Your task to perform on an android device: Open Maps and search for coffee Image 0: 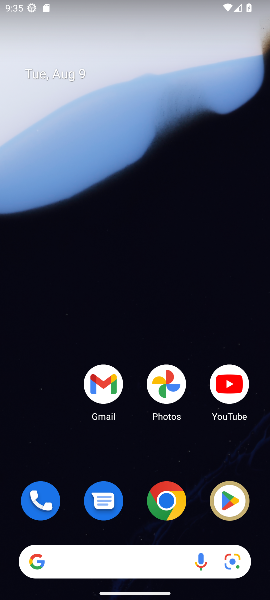
Step 0: drag from (139, 474) to (184, 21)
Your task to perform on an android device: Open Maps and search for coffee Image 1: 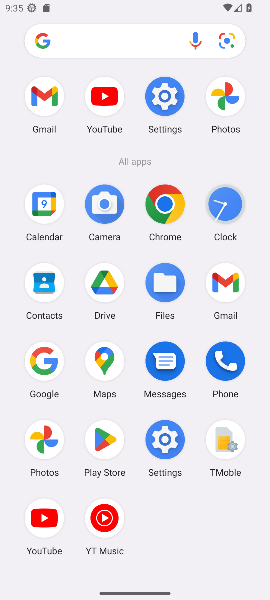
Step 1: click (104, 361)
Your task to perform on an android device: Open Maps and search for coffee Image 2: 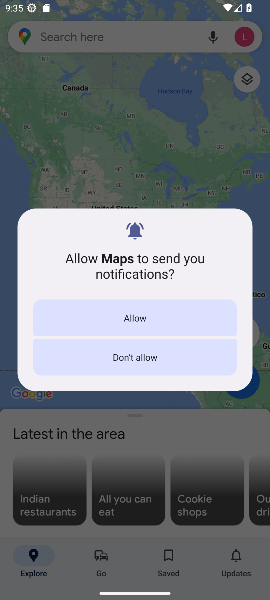
Step 2: click (122, 322)
Your task to perform on an android device: Open Maps and search for coffee Image 3: 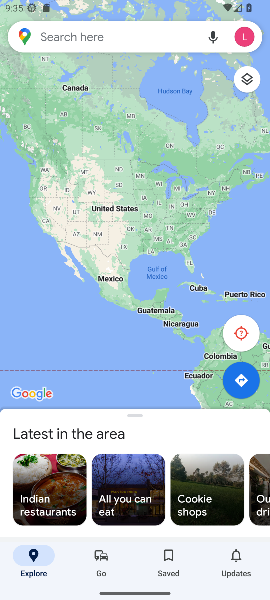
Step 3: click (91, 37)
Your task to perform on an android device: Open Maps and search for coffee Image 4: 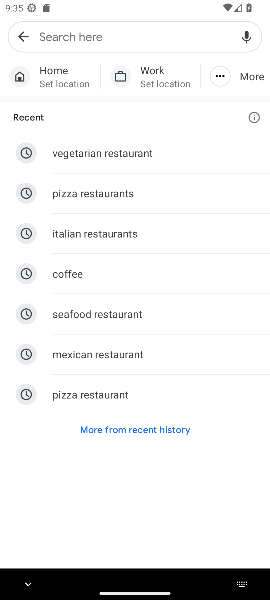
Step 4: click (65, 273)
Your task to perform on an android device: Open Maps and search for coffee Image 5: 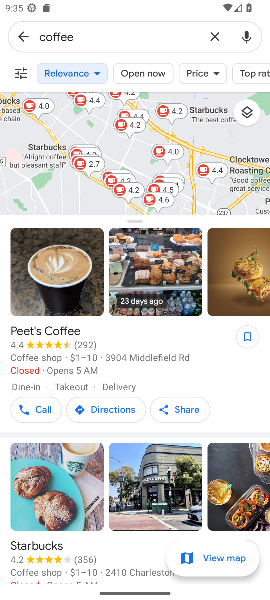
Step 5: task complete